Your task to perform on an android device: Open display settings Image 0: 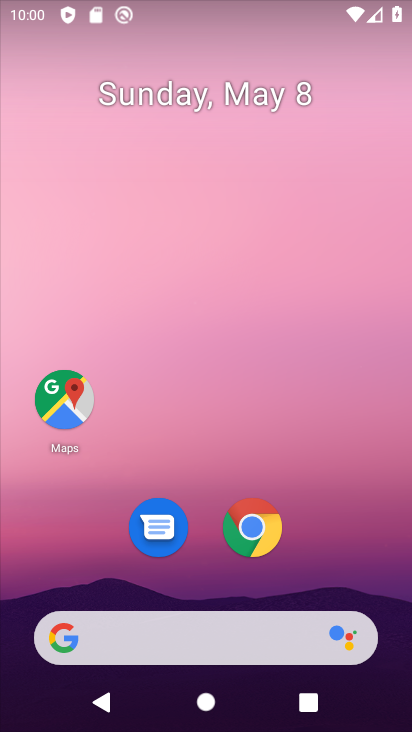
Step 0: drag from (308, 529) to (308, 148)
Your task to perform on an android device: Open display settings Image 1: 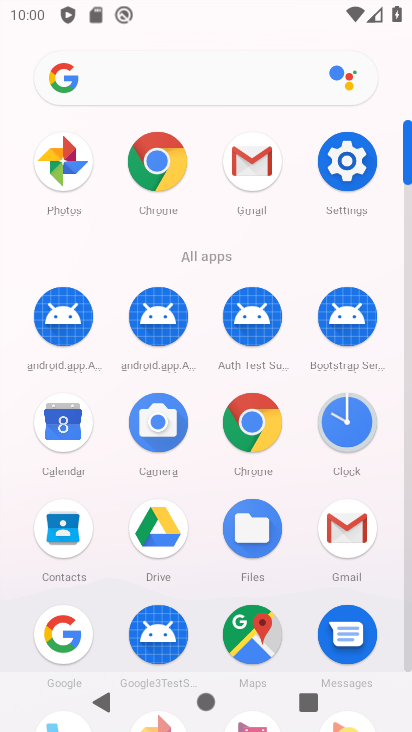
Step 1: click (357, 171)
Your task to perform on an android device: Open display settings Image 2: 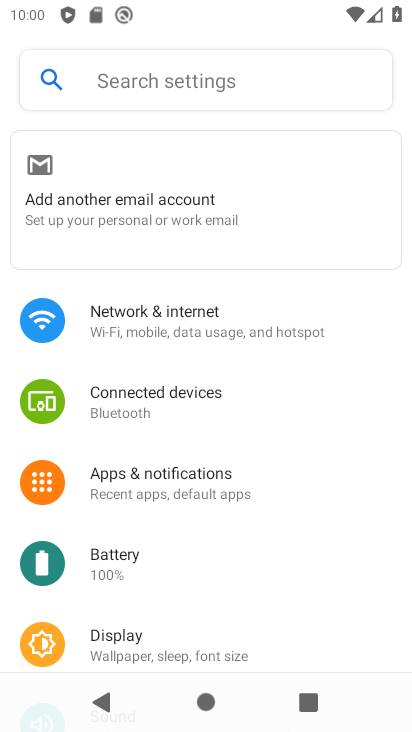
Step 2: drag from (260, 601) to (322, 254)
Your task to perform on an android device: Open display settings Image 3: 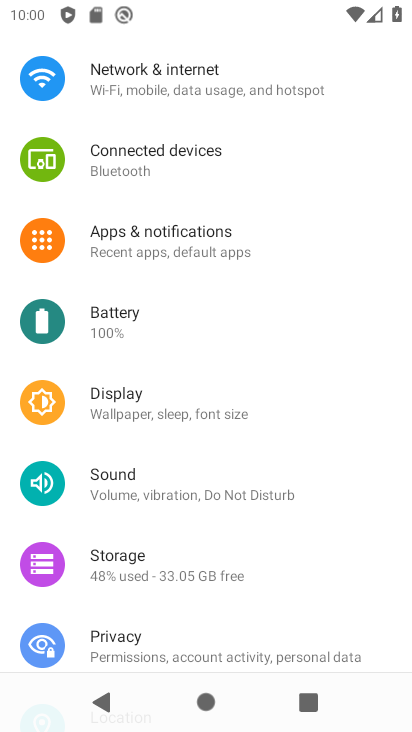
Step 3: click (196, 402)
Your task to perform on an android device: Open display settings Image 4: 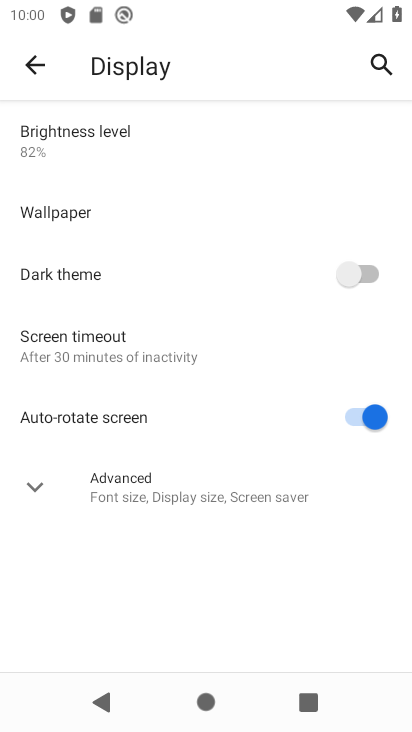
Step 4: task complete